Your task to perform on an android device: toggle airplane mode Image 0: 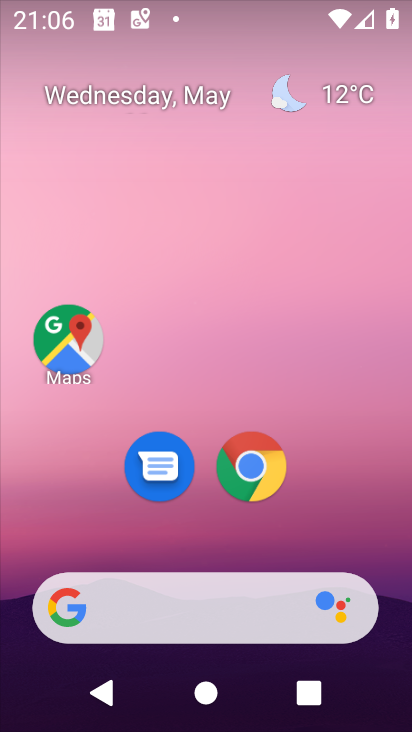
Step 0: drag from (230, 5) to (172, 442)
Your task to perform on an android device: toggle airplane mode Image 1: 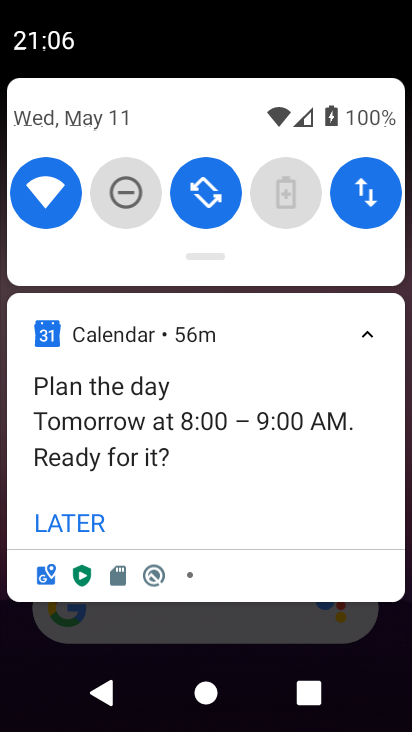
Step 1: drag from (271, 236) to (232, 731)
Your task to perform on an android device: toggle airplane mode Image 2: 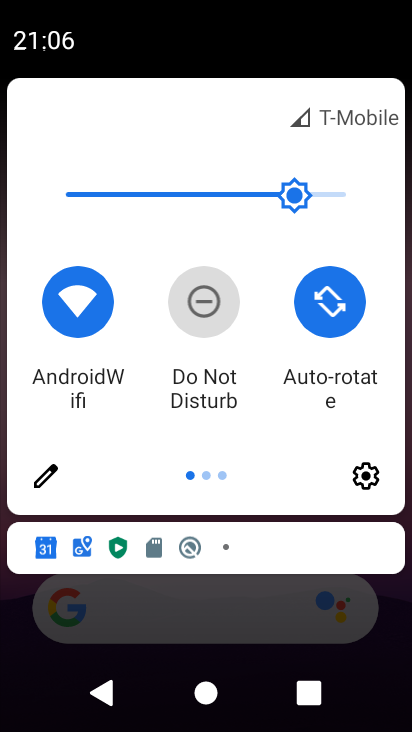
Step 2: drag from (369, 352) to (43, 356)
Your task to perform on an android device: toggle airplane mode Image 3: 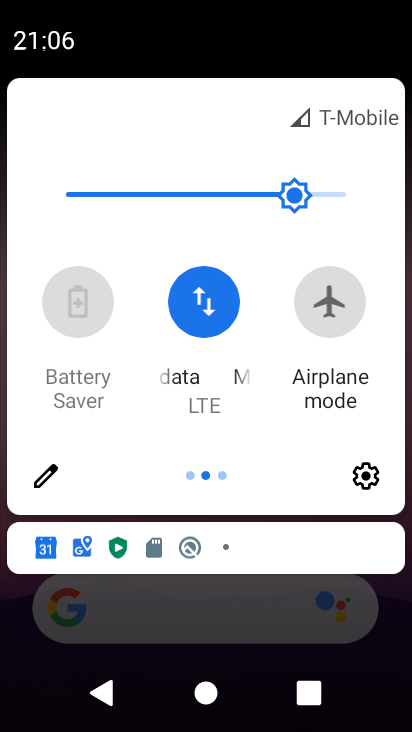
Step 3: click (323, 321)
Your task to perform on an android device: toggle airplane mode Image 4: 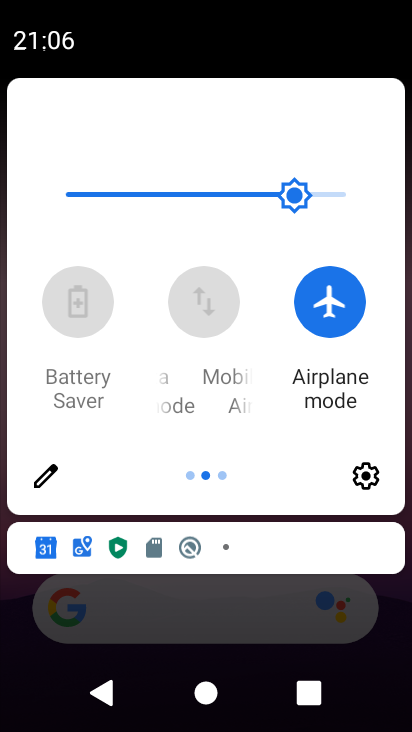
Step 4: task complete